Your task to perform on an android device: What is the recent news? Image 0: 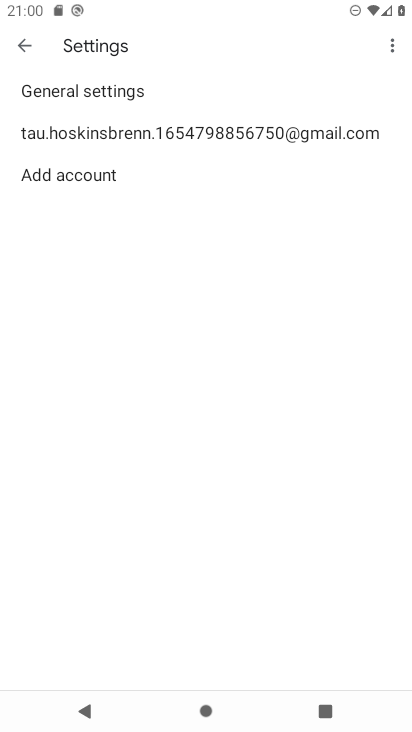
Step 0: press home button
Your task to perform on an android device: What is the recent news? Image 1: 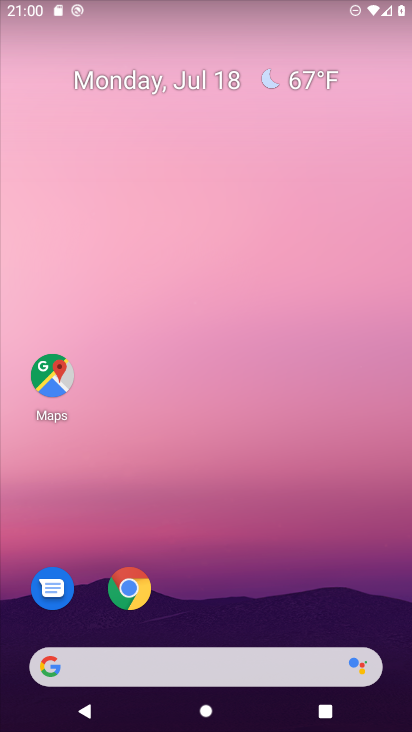
Step 1: task complete